Your task to perform on an android device: toggle improve location accuracy Image 0: 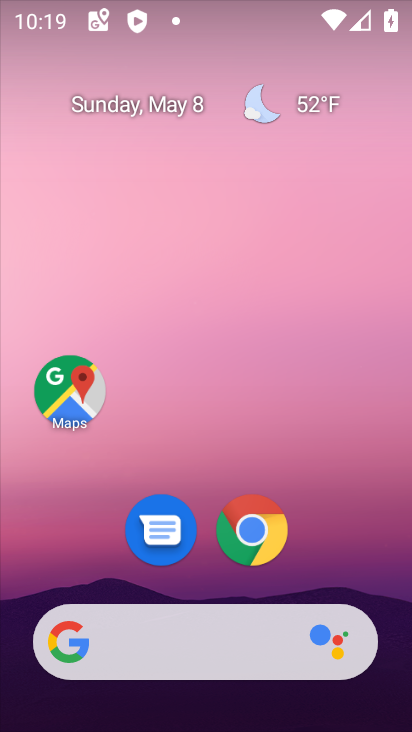
Step 0: drag from (372, 574) to (363, 178)
Your task to perform on an android device: toggle improve location accuracy Image 1: 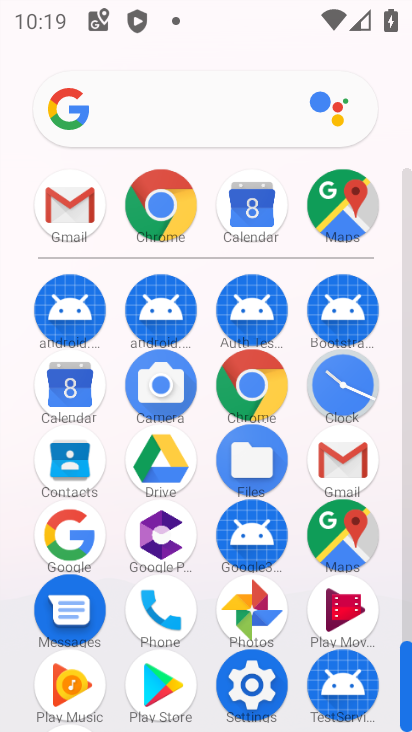
Step 1: click (251, 689)
Your task to perform on an android device: toggle improve location accuracy Image 2: 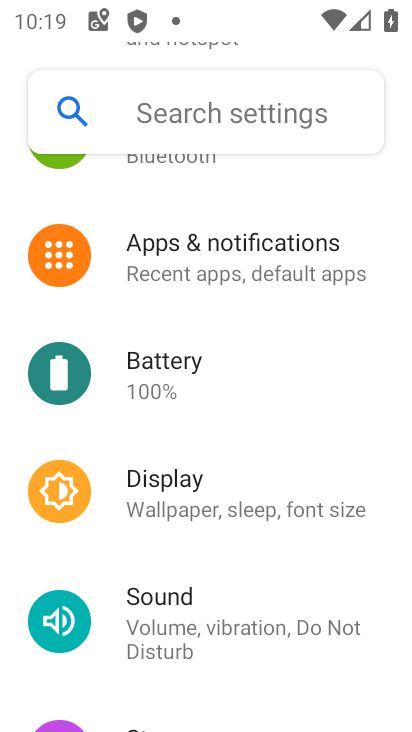
Step 2: drag from (264, 672) to (257, 281)
Your task to perform on an android device: toggle improve location accuracy Image 3: 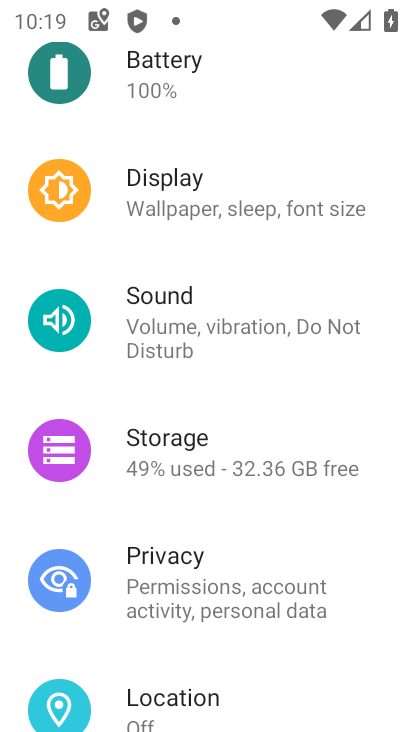
Step 3: click (182, 684)
Your task to perform on an android device: toggle improve location accuracy Image 4: 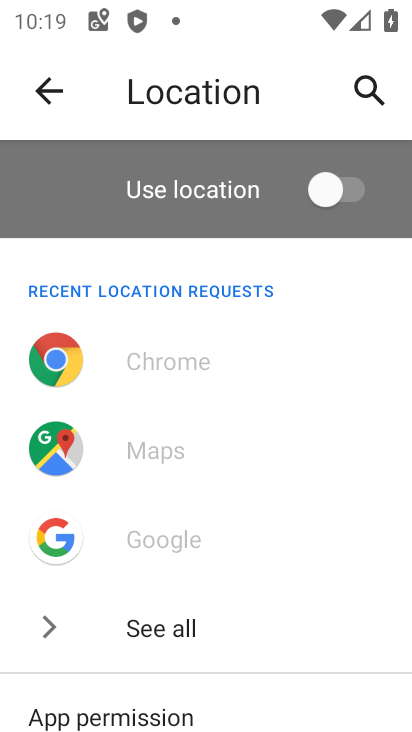
Step 4: drag from (223, 708) to (275, 319)
Your task to perform on an android device: toggle improve location accuracy Image 5: 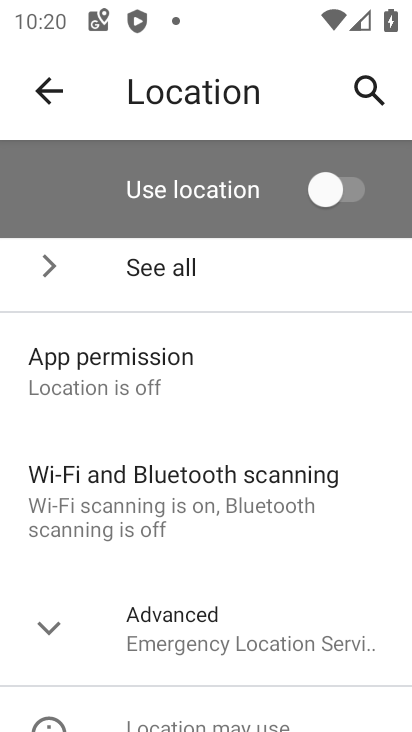
Step 5: drag from (309, 591) to (300, 292)
Your task to perform on an android device: toggle improve location accuracy Image 6: 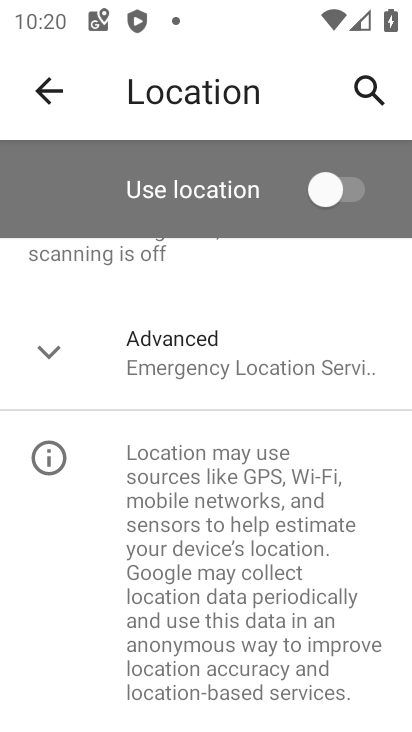
Step 6: click (269, 343)
Your task to perform on an android device: toggle improve location accuracy Image 7: 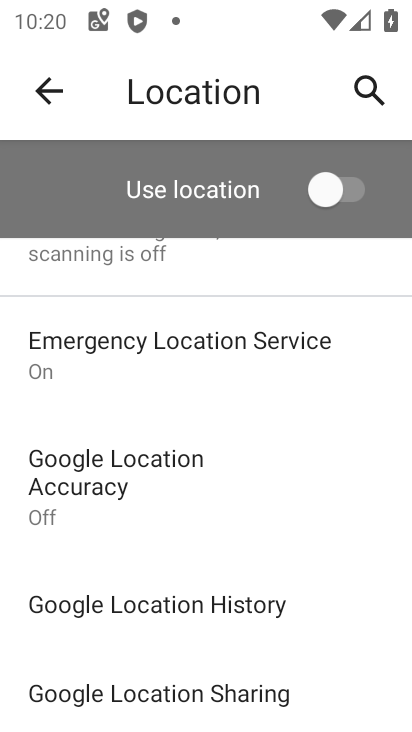
Step 7: drag from (296, 622) to (310, 378)
Your task to perform on an android device: toggle improve location accuracy Image 8: 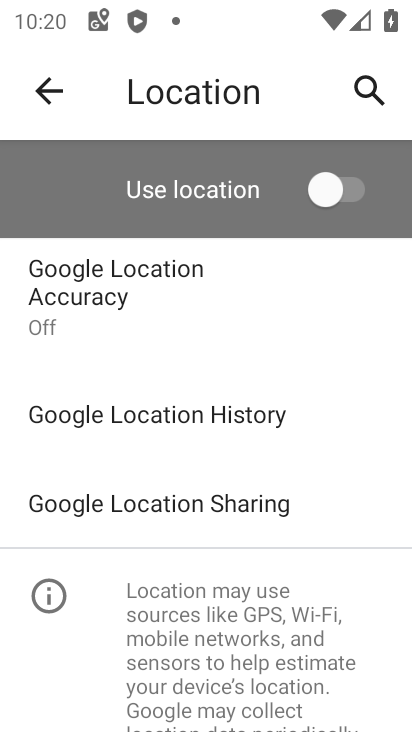
Step 8: drag from (193, 360) to (258, 579)
Your task to perform on an android device: toggle improve location accuracy Image 9: 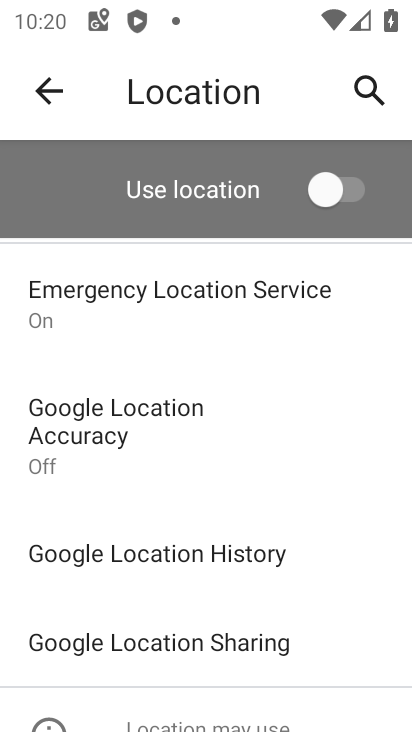
Step 9: click (67, 440)
Your task to perform on an android device: toggle improve location accuracy Image 10: 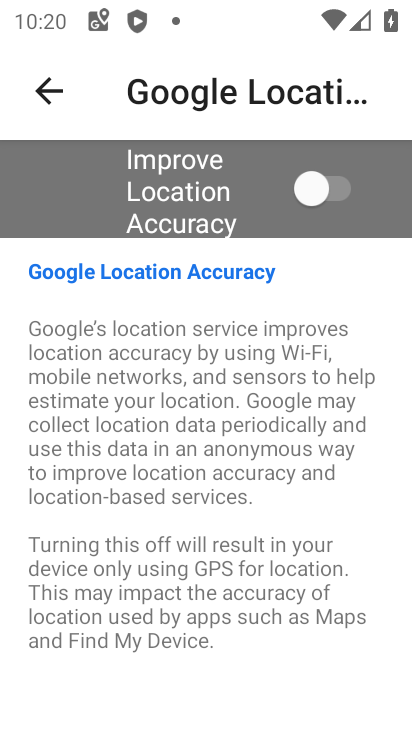
Step 10: click (336, 190)
Your task to perform on an android device: toggle improve location accuracy Image 11: 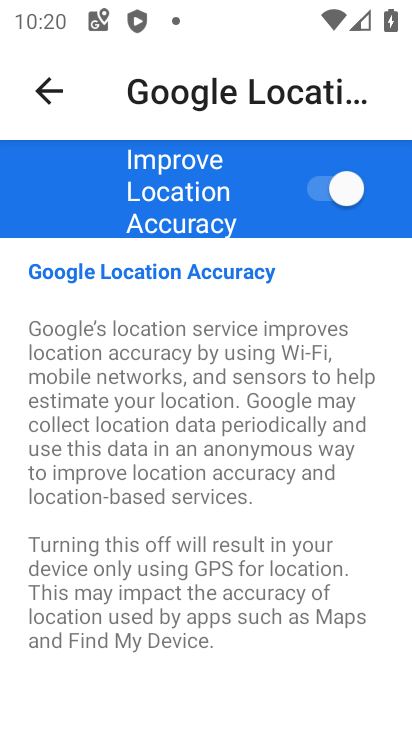
Step 11: task complete